Your task to perform on an android device: turn off notifications settings in the gmail app Image 0: 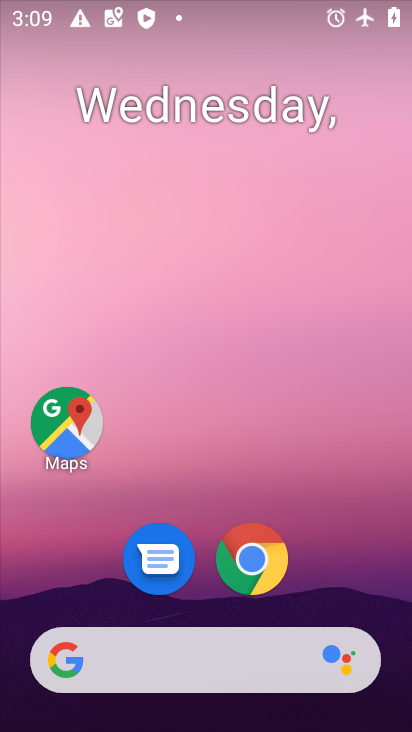
Step 0: drag from (200, 596) to (200, 150)
Your task to perform on an android device: turn off notifications settings in the gmail app Image 1: 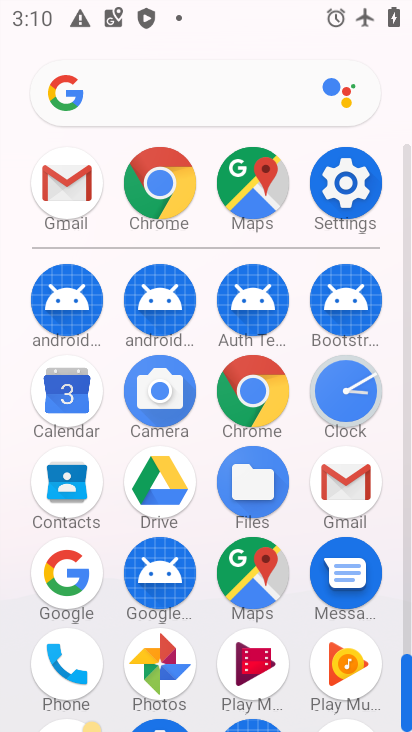
Step 1: click (335, 490)
Your task to perform on an android device: turn off notifications settings in the gmail app Image 2: 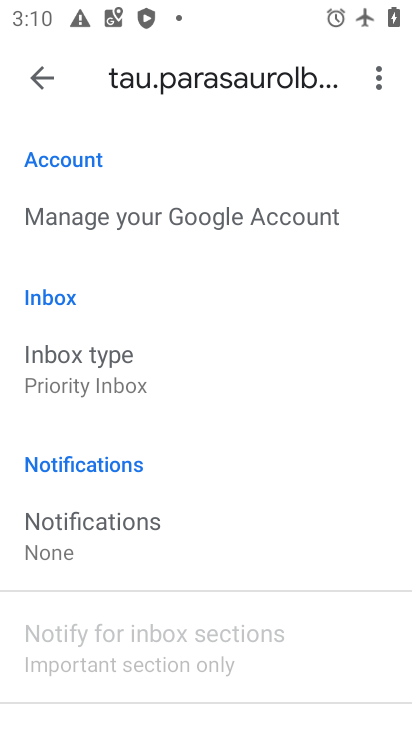
Step 2: task complete